Your task to perform on an android device: toggle improve location accuracy Image 0: 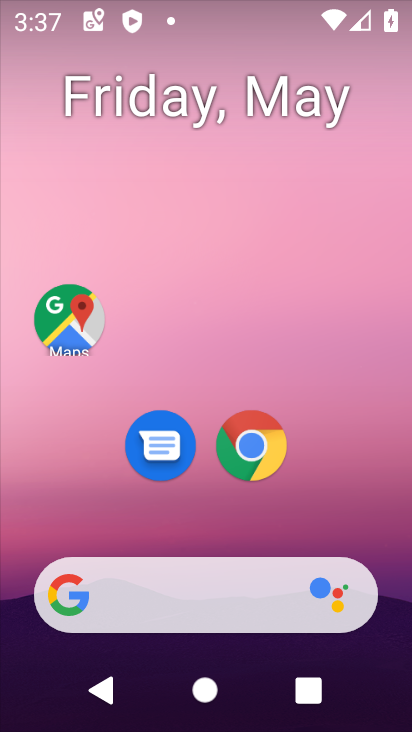
Step 0: drag from (223, 504) to (284, 4)
Your task to perform on an android device: toggle improve location accuracy Image 1: 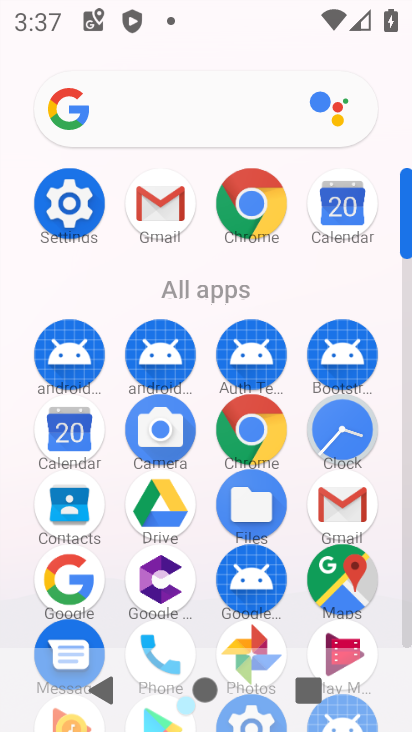
Step 1: click (85, 224)
Your task to perform on an android device: toggle improve location accuracy Image 2: 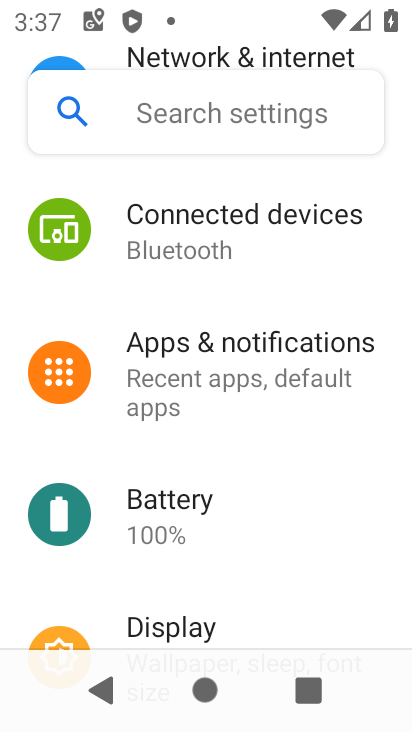
Step 2: drag from (209, 449) to (214, 238)
Your task to perform on an android device: toggle improve location accuracy Image 3: 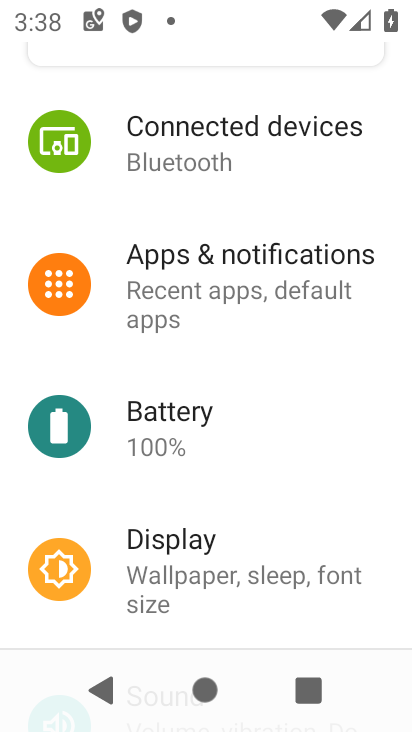
Step 3: drag from (196, 576) to (284, 32)
Your task to perform on an android device: toggle improve location accuracy Image 4: 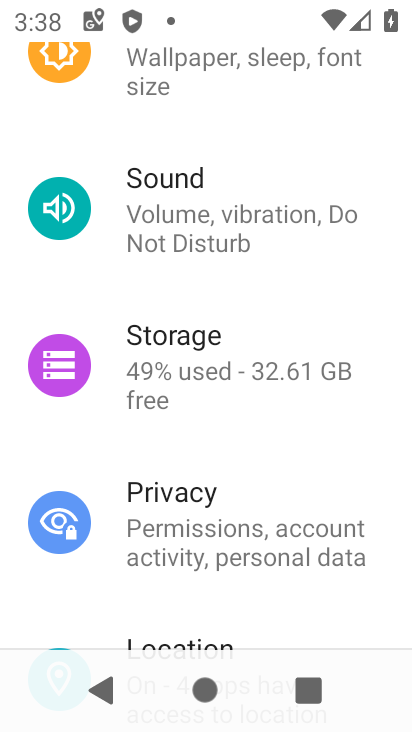
Step 4: drag from (189, 586) to (240, 131)
Your task to perform on an android device: toggle improve location accuracy Image 5: 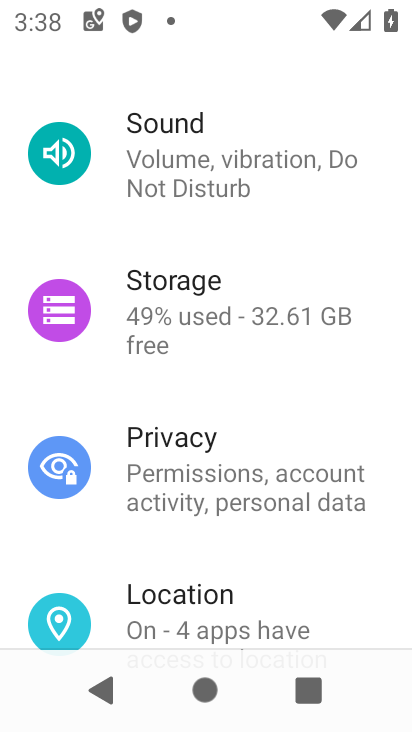
Step 5: click (211, 612)
Your task to perform on an android device: toggle improve location accuracy Image 6: 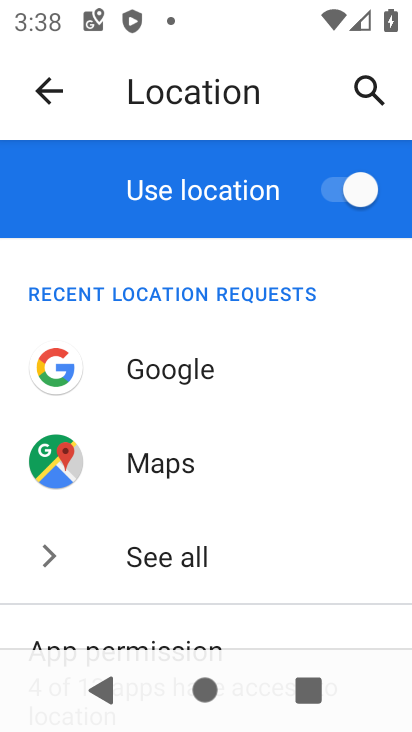
Step 6: drag from (248, 458) to (265, 204)
Your task to perform on an android device: toggle improve location accuracy Image 7: 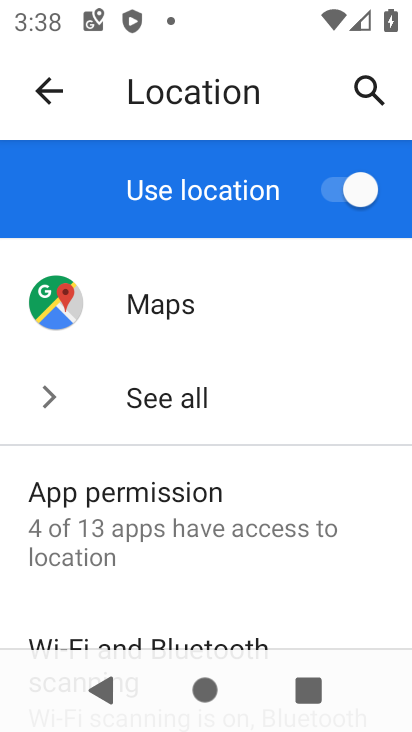
Step 7: drag from (148, 603) to (186, 288)
Your task to perform on an android device: toggle improve location accuracy Image 8: 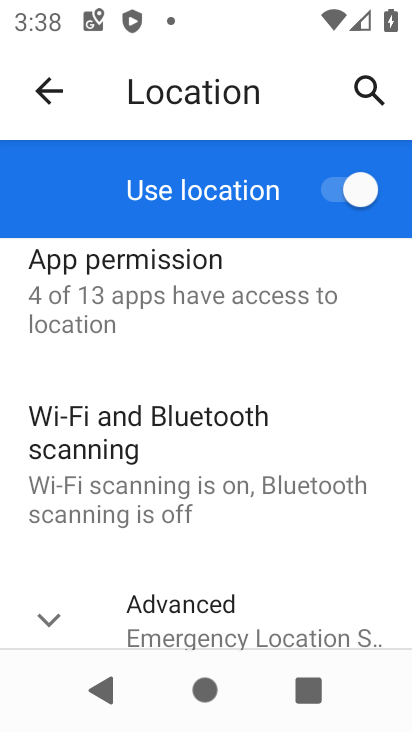
Step 8: click (84, 617)
Your task to perform on an android device: toggle improve location accuracy Image 9: 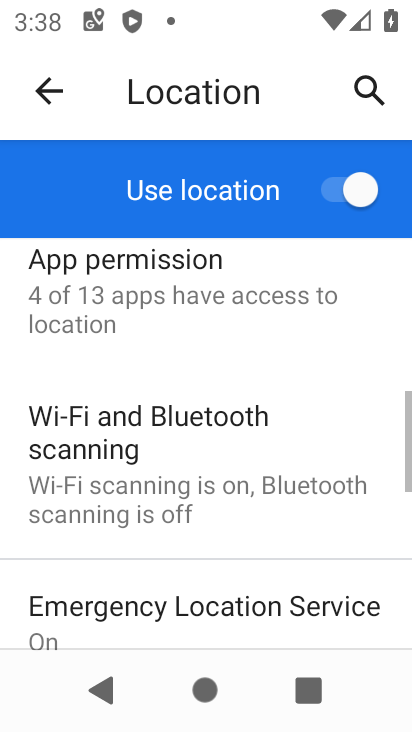
Step 9: drag from (196, 613) to (196, 192)
Your task to perform on an android device: toggle improve location accuracy Image 10: 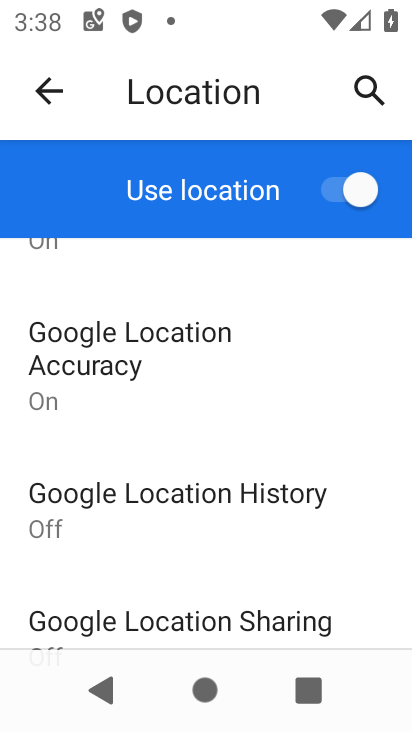
Step 10: drag from (146, 604) to (209, 182)
Your task to perform on an android device: toggle improve location accuracy Image 11: 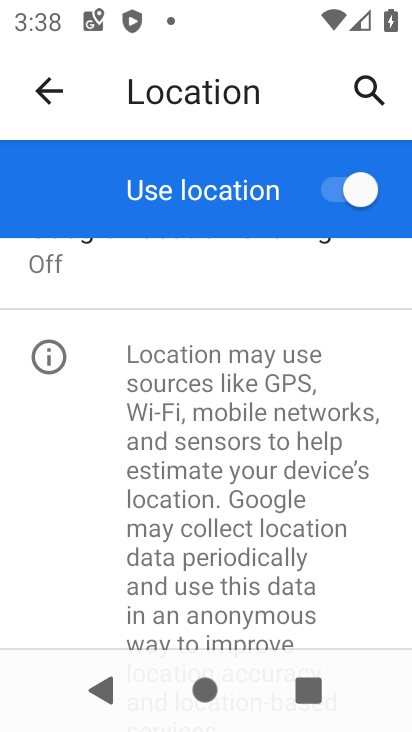
Step 11: click (171, 530)
Your task to perform on an android device: toggle improve location accuracy Image 12: 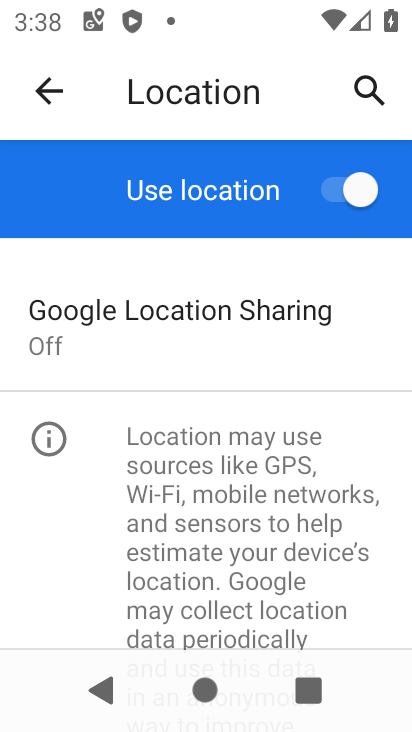
Step 12: drag from (190, 350) to (162, 611)
Your task to perform on an android device: toggle improve location accuracy Image 13: 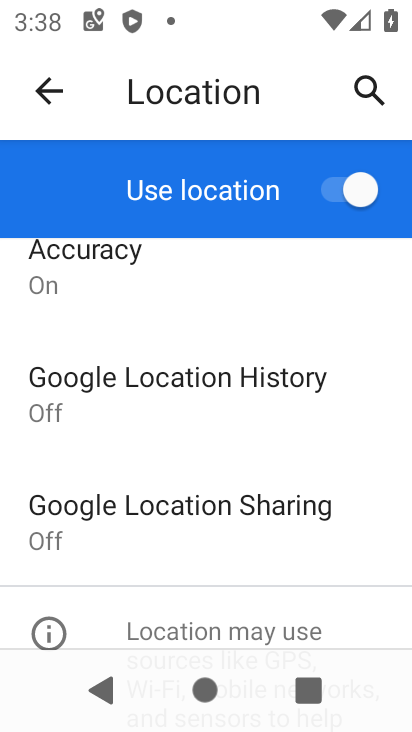
Step 13: click (91, 273)
Your task to perform on an android device: toggle improve location accuracy Image 14: 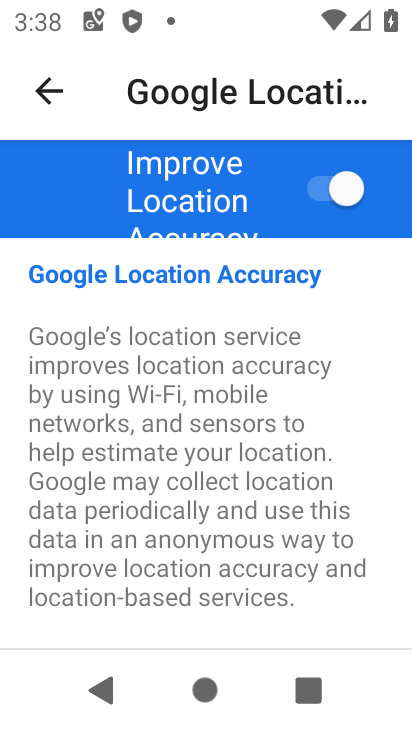
Step 14: click (319, 191)
Your task to perform on an android device: toggle improve location accuracy Image 15: 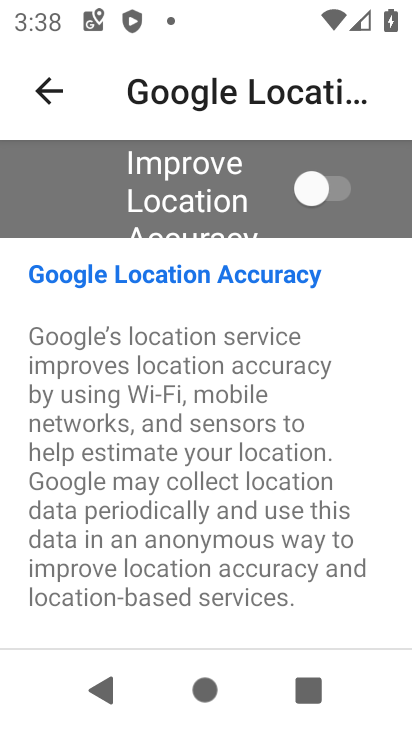
Step 15: task complete